Your task to perform on an android device: Show me popular games on the Play Store Image 0: 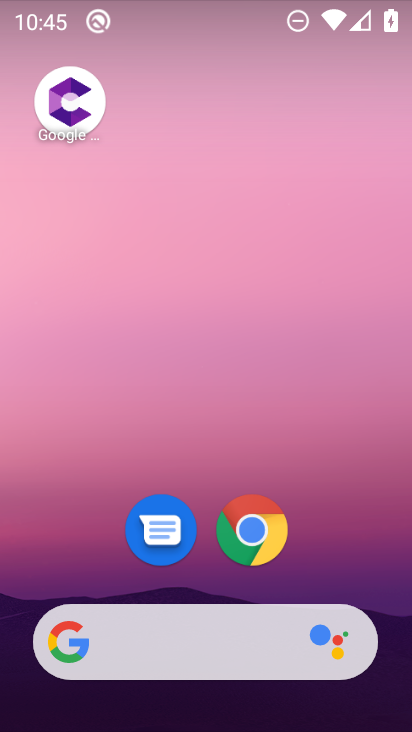
Step 0: drag from (405, 659) to (187, 83)
Your task to perform on an android device: Show me popular games on the Play Store Image 1: 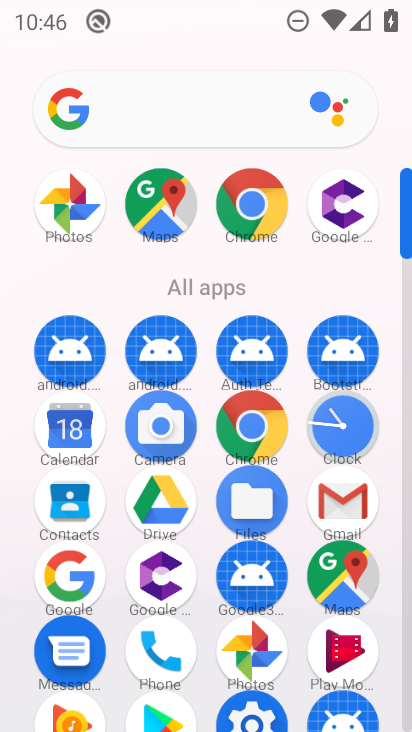
Step 1: drag from (194, 571) to (152, 177)
Your task to perform on an android device: Show me popular games on the Play Store Image 2: 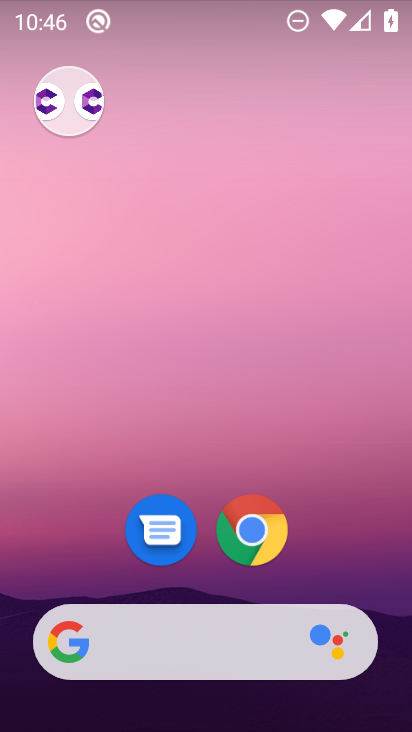
Step 2: drag from (186, 347) to (154, 120)
Your task to perform on an android device: Show me popular games on the Play Store Image 3: 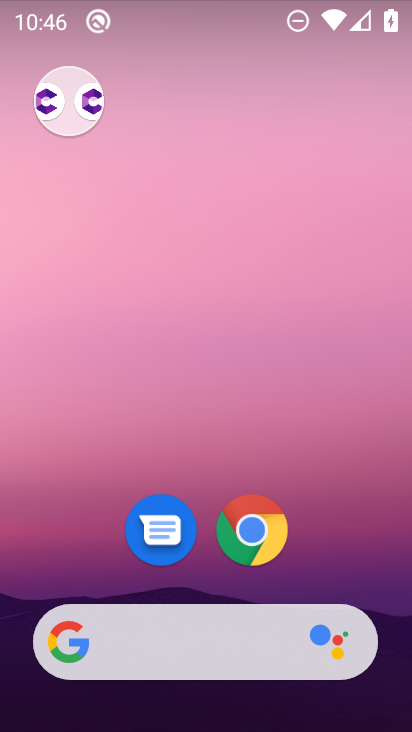
Step 3: drag from (197, 410) to (148, 245)
Your task to perform on an android device: Show me popular games on the Play Store Image 4: 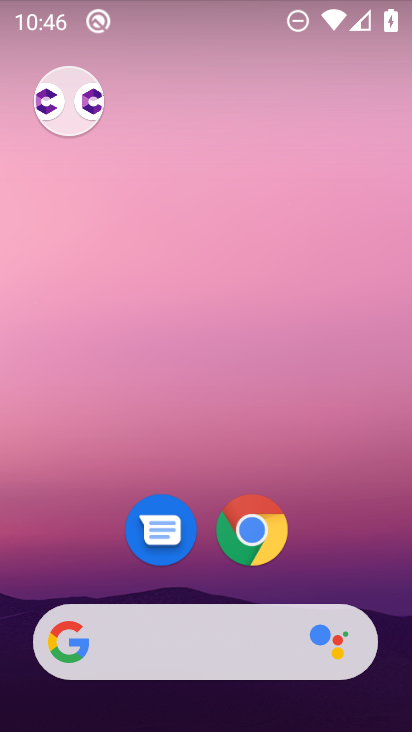
Step 4: drag from (221, 404) to (210, 31)
Your task to perform on an android device: Show me popular games on the Play Store Image 5: 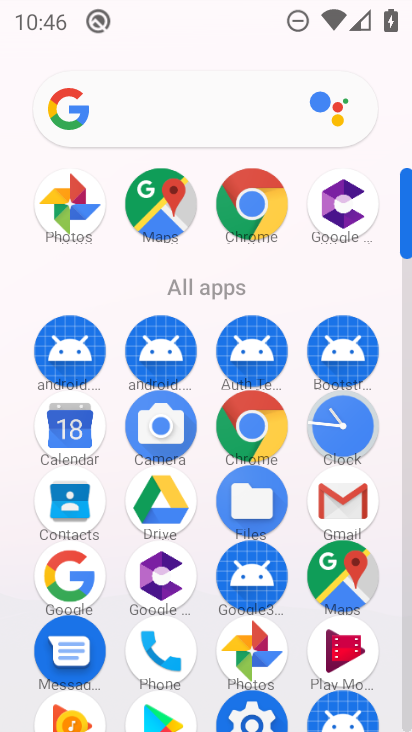
Step 5: drag from (355, 564) to (256, 75)
Your task to perform on an android device: Show me popular games on the Play Store Image 6: 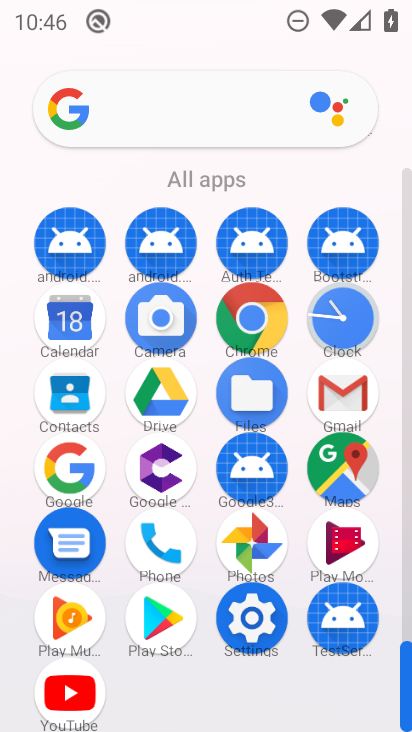
Step 6: click (152, 617)
Your task to perform on an android device: Show me popular games on the Play Store Image 7: 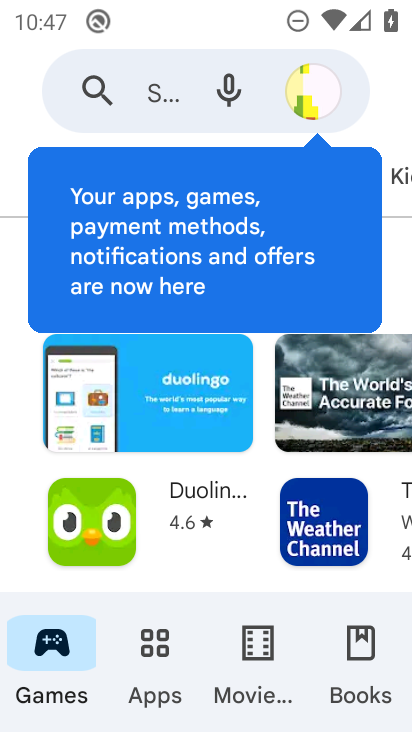
Step 7: click (166, 612)
Your task to perform on an android device: Show me popular games on the Play Store Image 8: 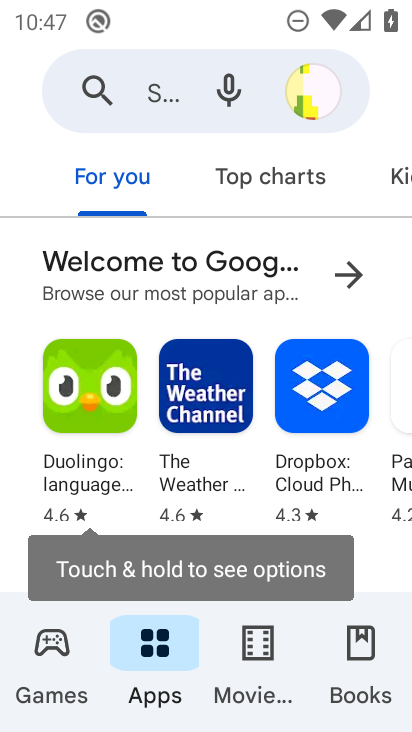
Step 8: click (164, 630)
Your task to perform on an android device: Show me popular games on the Play Store Image 9: 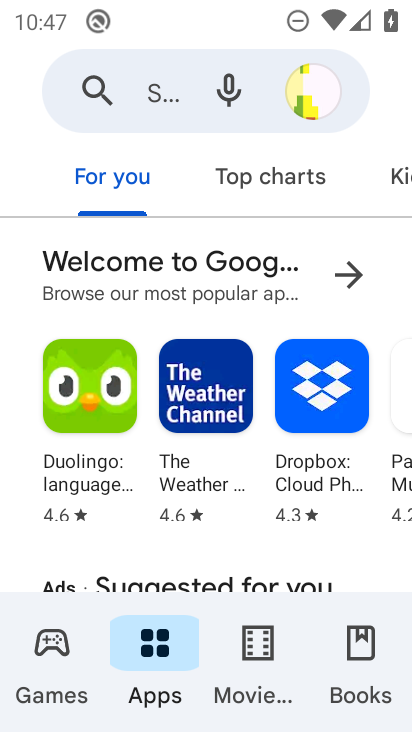
Step 9: click (161, 583)
Your task to perform on an android device: Show me popular games on the Play Store Image 10: 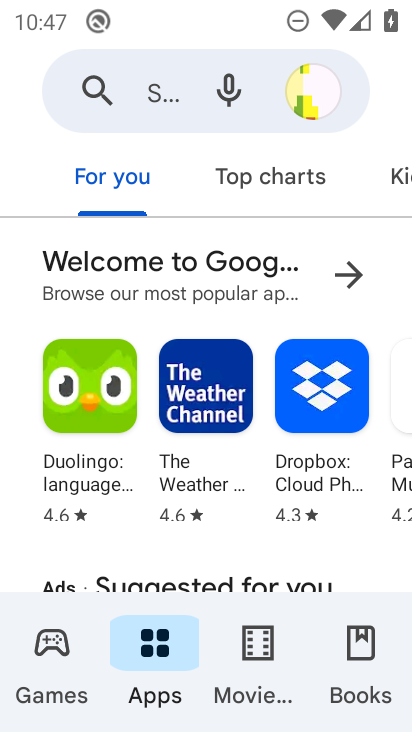
Step 10: click (169, 610)
Your task to perform on an android device: Show me popular games on the Play Store Image 11: 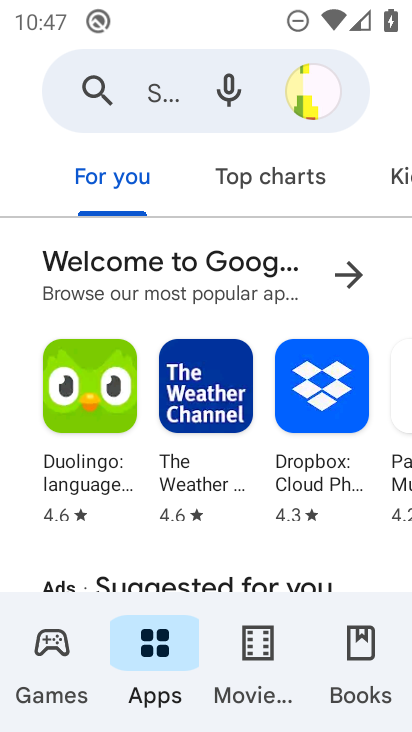
Step 11: press back button
Your task to perform on an android device: Show me popular games on the Play Store Image 12: 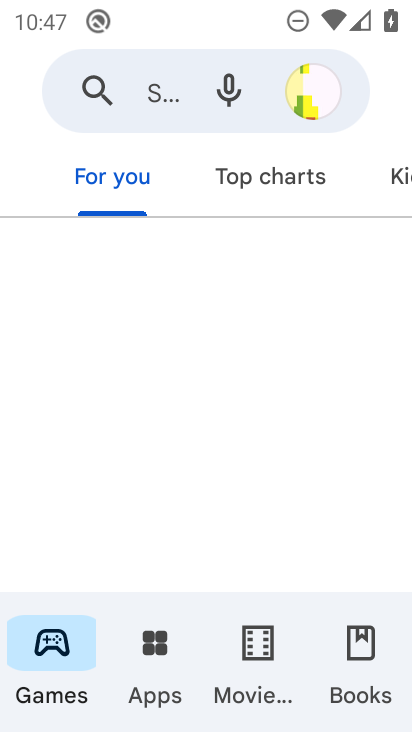
Step 12: press back button
Your task to perform on an android device: Show me popular games on the Play Store Image 13: 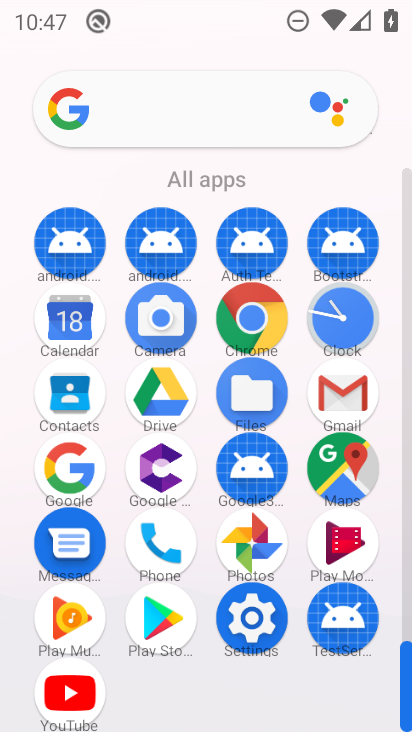
Step 13: press home button
Your task to perform on an android device: Show me popular games on the Play Store Image 14: 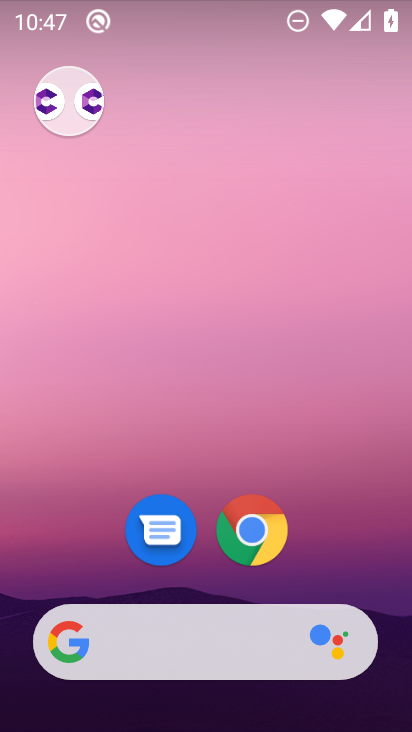
Step 14: drag from (143, 378) to (186, 59)
Your task to perform on an android device: Show me popular games on the Play Store Image 15: 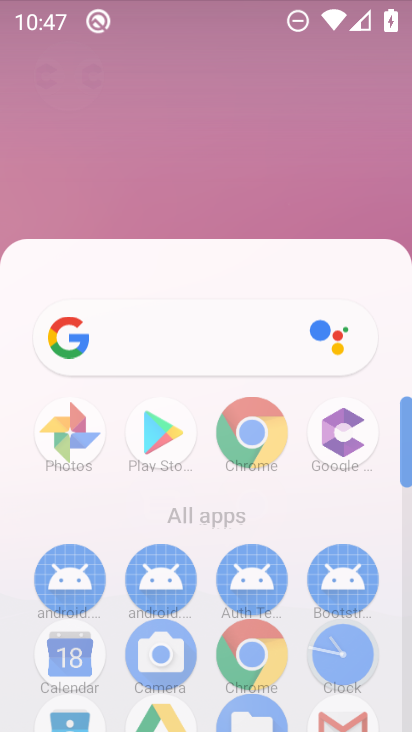
Step 15: drag from (322, 563) to (235, 215)
Your task to perform on an android device: Show me popular games on the Play Store Image 16: 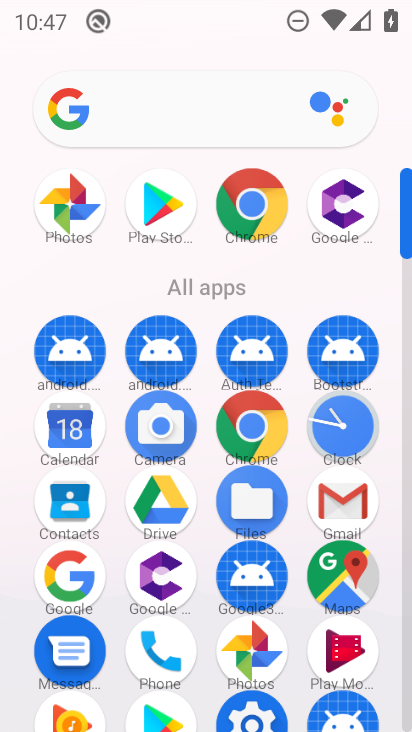
Step 16: drag from (213, 614) to (169, 195)
Your task to perform on an android device: Show me popular games on the Play Store Image 17: 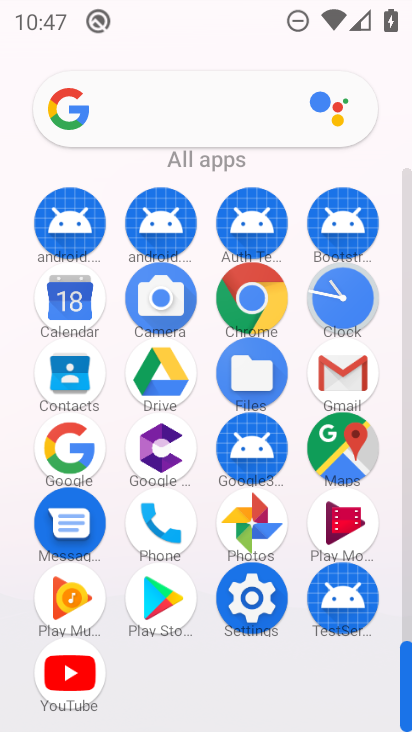
Step 17: click (172, 25)
Your task to perform on an android device: Show me popular games on the Play Store Image 18: 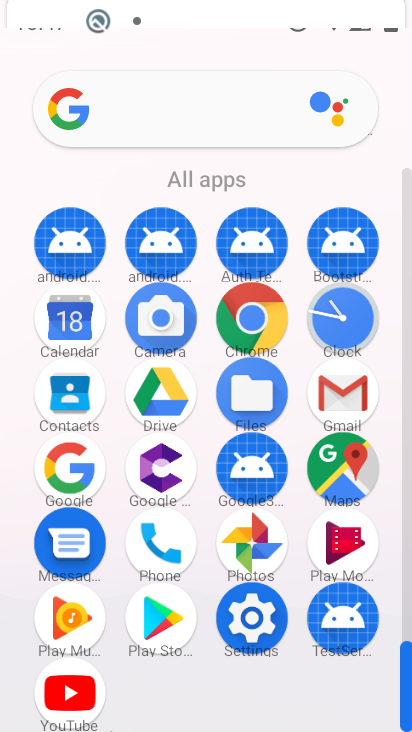
Step 18: drag from (255, 51) to (217, 93)
Your task to perform on an android device: Show me popular games on the Play Store Image 19: 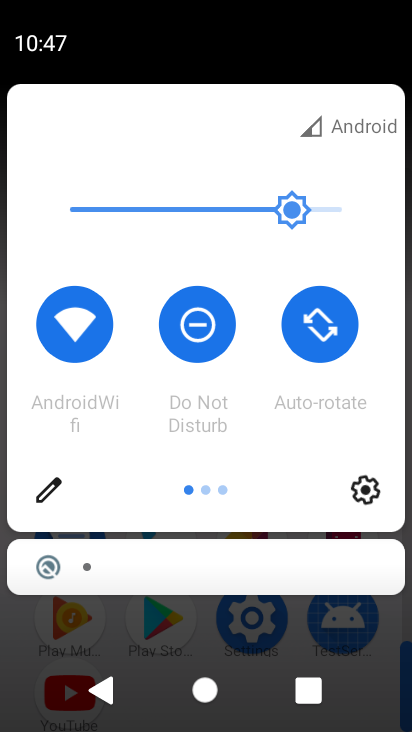
Step 19: drag from (267, 441) to (183, 128)
Your task to perform on an android device: Show me popular games on the Play Store Image 20: 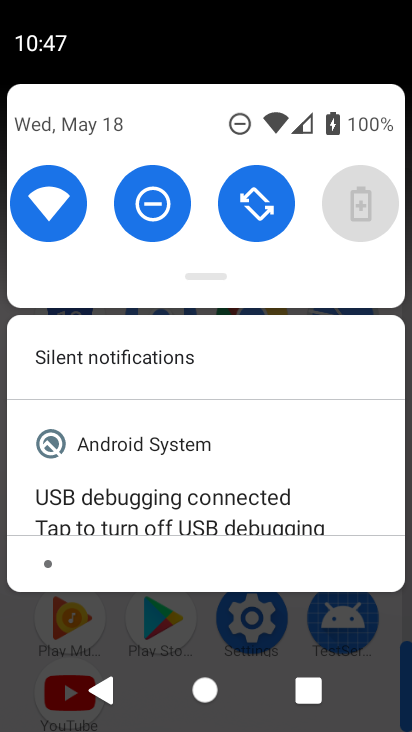
Step 20: click (197, 18)
Your task to perform on an android device: Show me popular games on the Play Store Image 21: 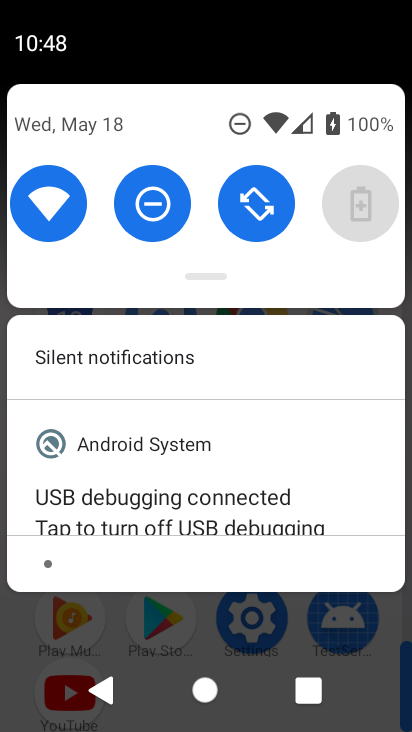
Step 21: task complete